Your task to perform on an android device: Go to Maps Image 0: 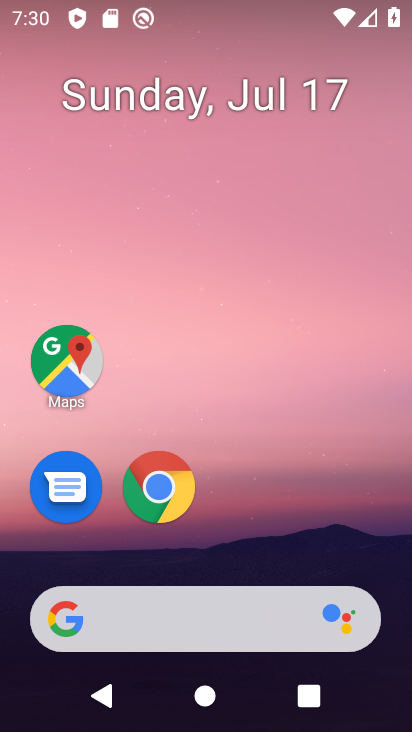
Step 0: drag from (364, 538) to (367, 82)
Your task to perform on an android device: Go to Maps Image 1: 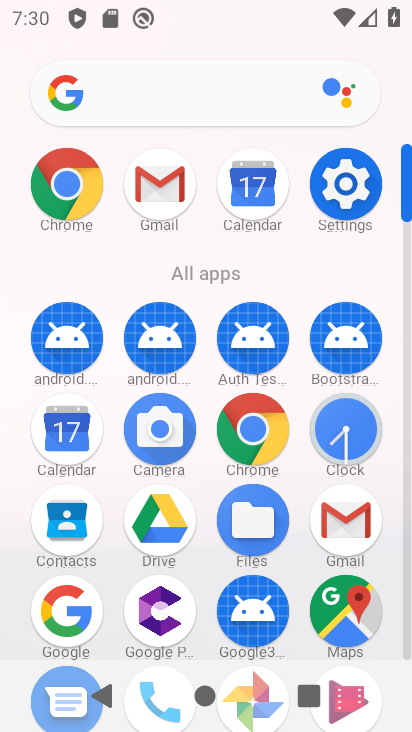
Step 1: drag from (388, 557) to (401, 383)
Your task to perform on an android device: Go to Maps Image 2: 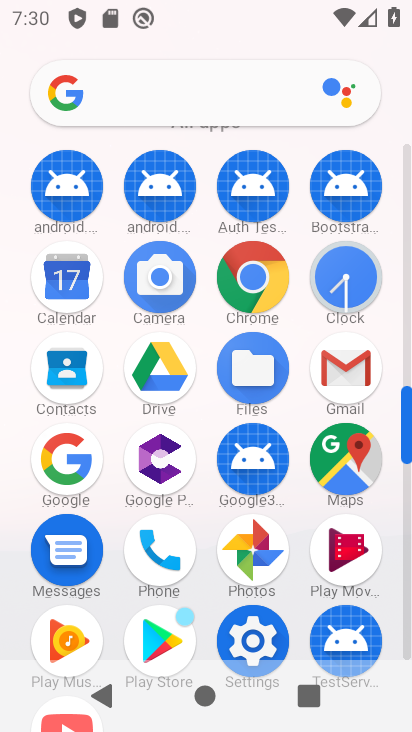
Step 2: drag from (387, 531) to (394, 326)
Your task to perform on an android device: Go to Maps Image 3: 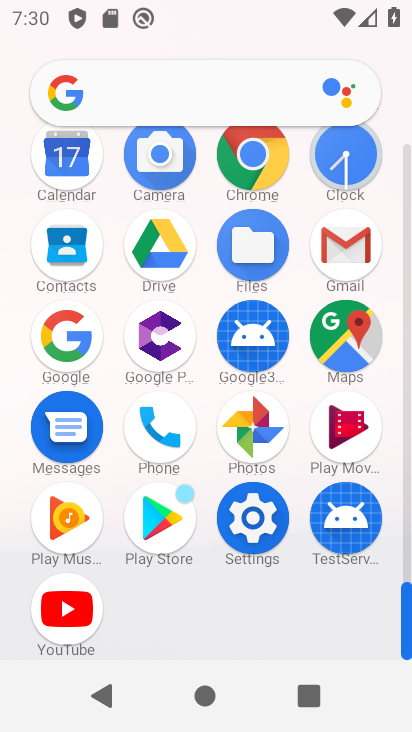
Step 3: click (346, 334)
Your task to perform on an android device: Go to Maps Image 4: 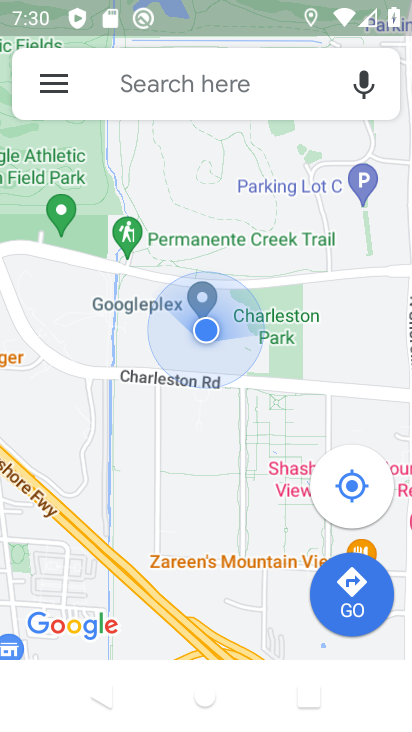
Step 4: task complete